Your task to perform on an android device: Open Amazon Image 0: 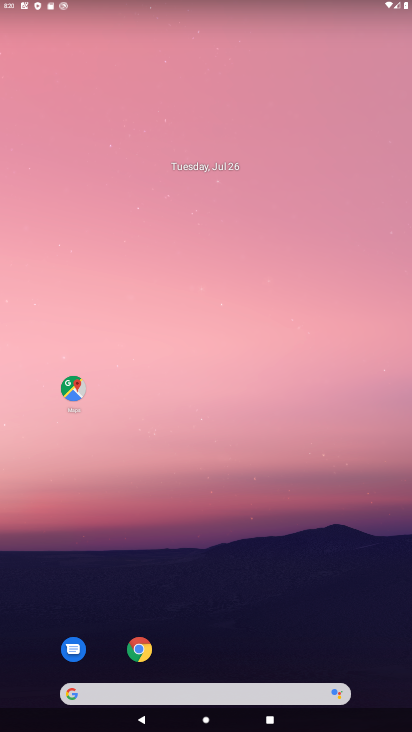
Step 0: click (129, 640)
Your task to perform on an android device: Open Amazon Image 1: 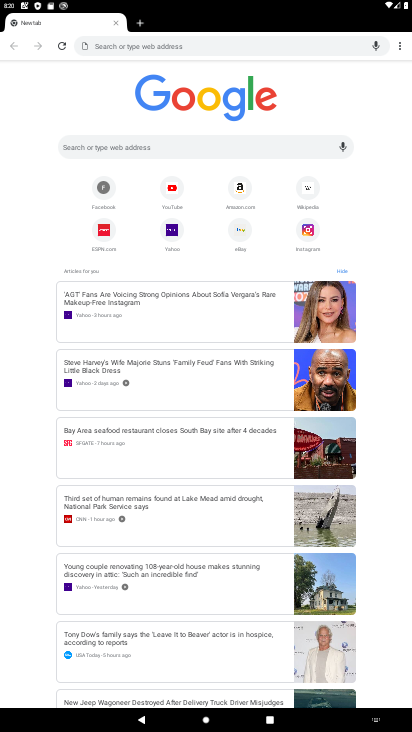
Step 1: click (247, 195)
Your task to perform on an android device: Open Amazon Image 2: 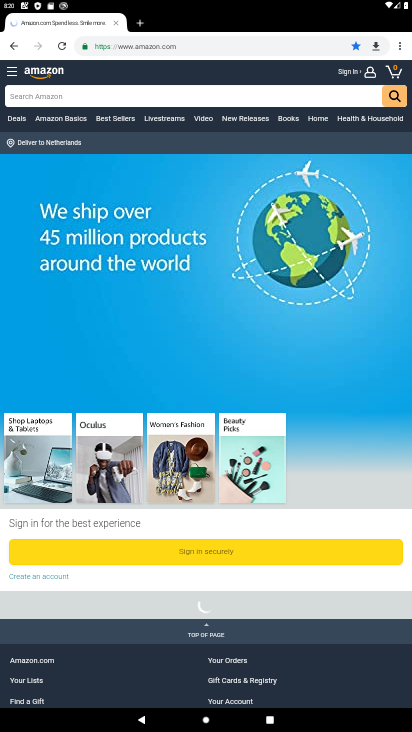
Step 2: task complete